Your task to perform on an android device: Clear all items from cart on amazon.com. Search for logitech g pro on amazon.com, select the first entry, and add it to the cart. Image 0: 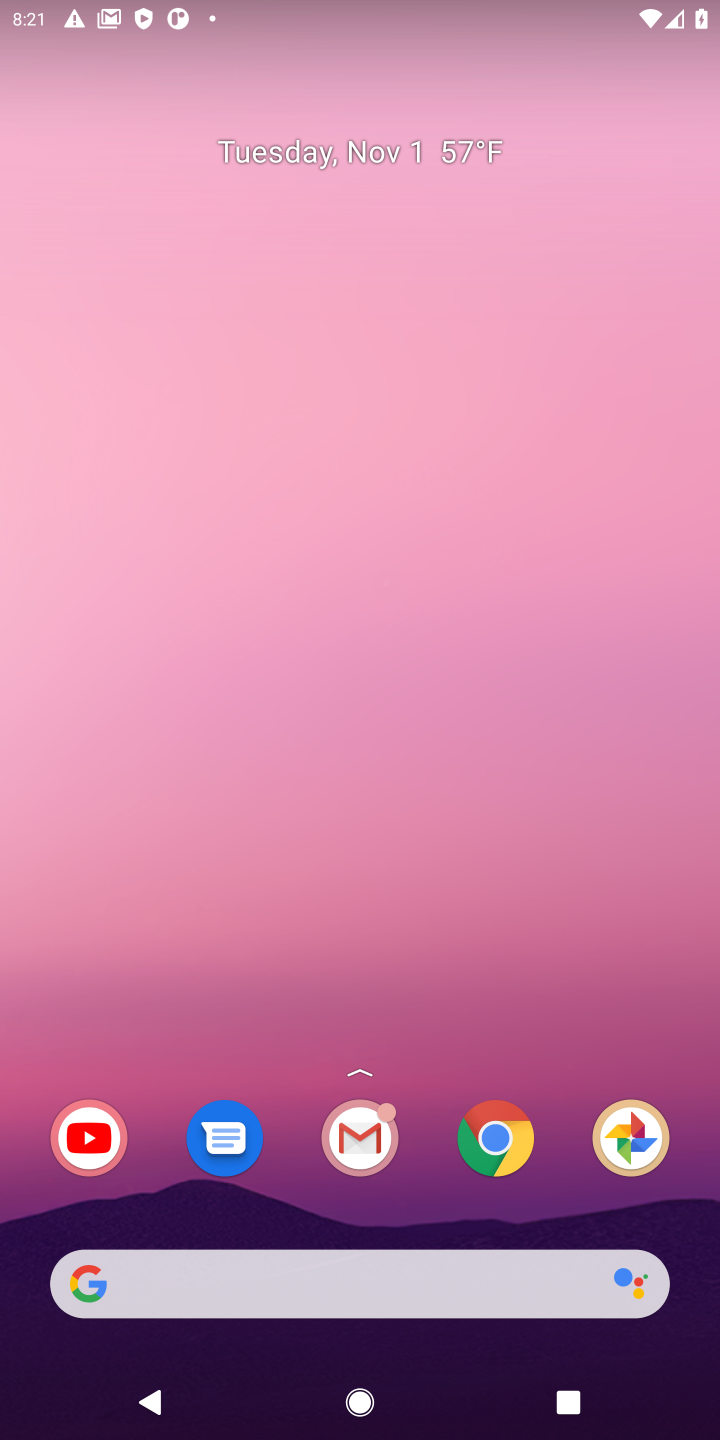
Step 0: click (489, 1146)
Your task to perform on an android device: Clear all items from cart on amazon.com. Search for logitech g pro on amazon.com, select the first entry, and add it to the cart. Image 1: 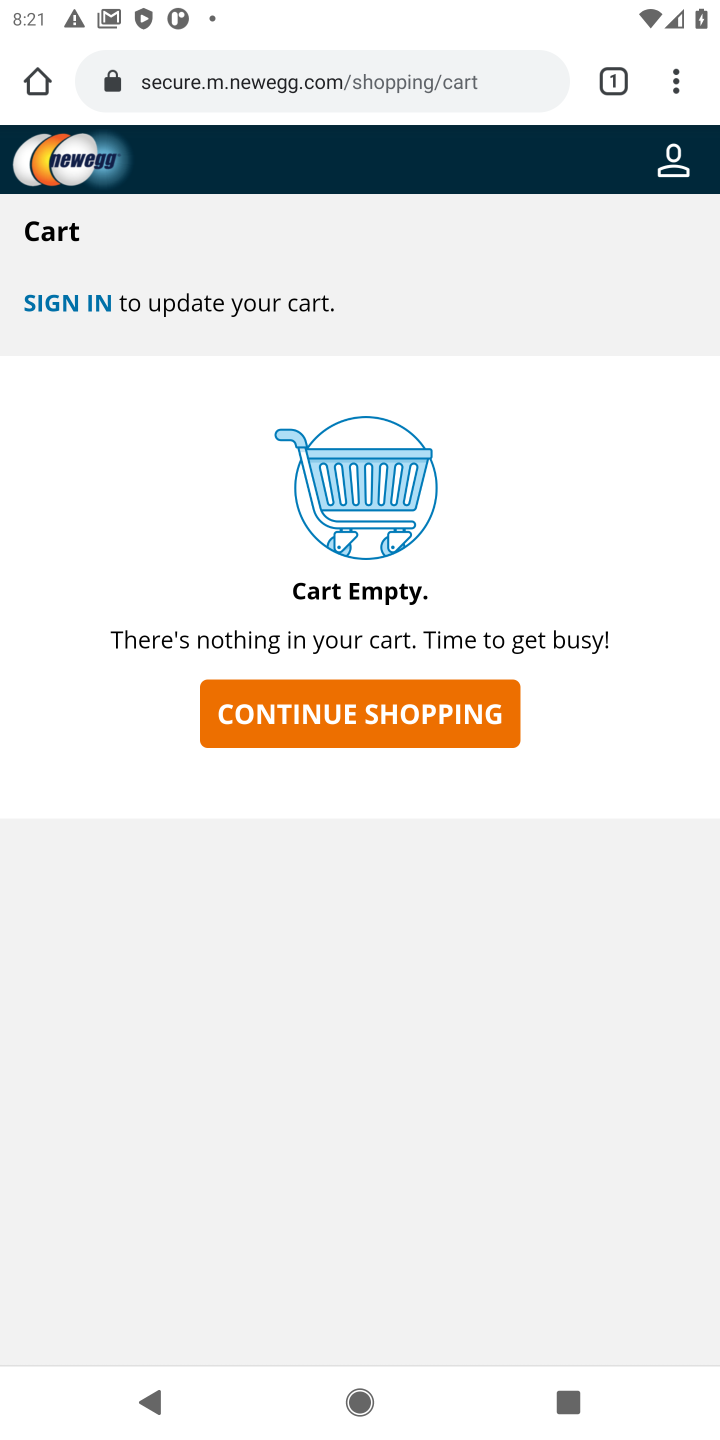
Step 1: click (221, 88)
Your task to perform on an android device: Clear all items from cart on amazon.com. Search for logitech g pro on amazon.com, select the first entry, and add it to the cart. Image 2: 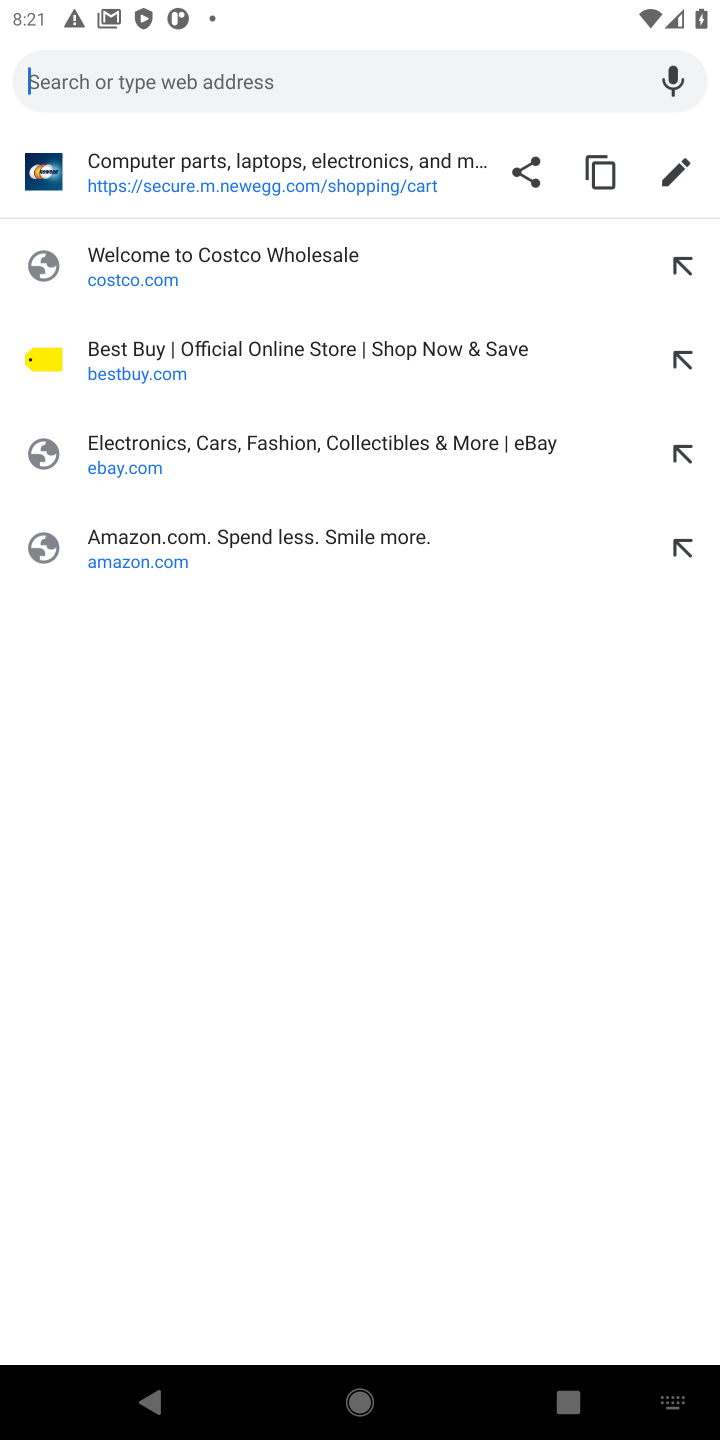
Step 2: click (130, 562)
Your task to perform on an android device: Clear all items from cart on amazon.com. Search for logitech g pro on amazon.com, select the first entry, and add it to the cart. Image 3: 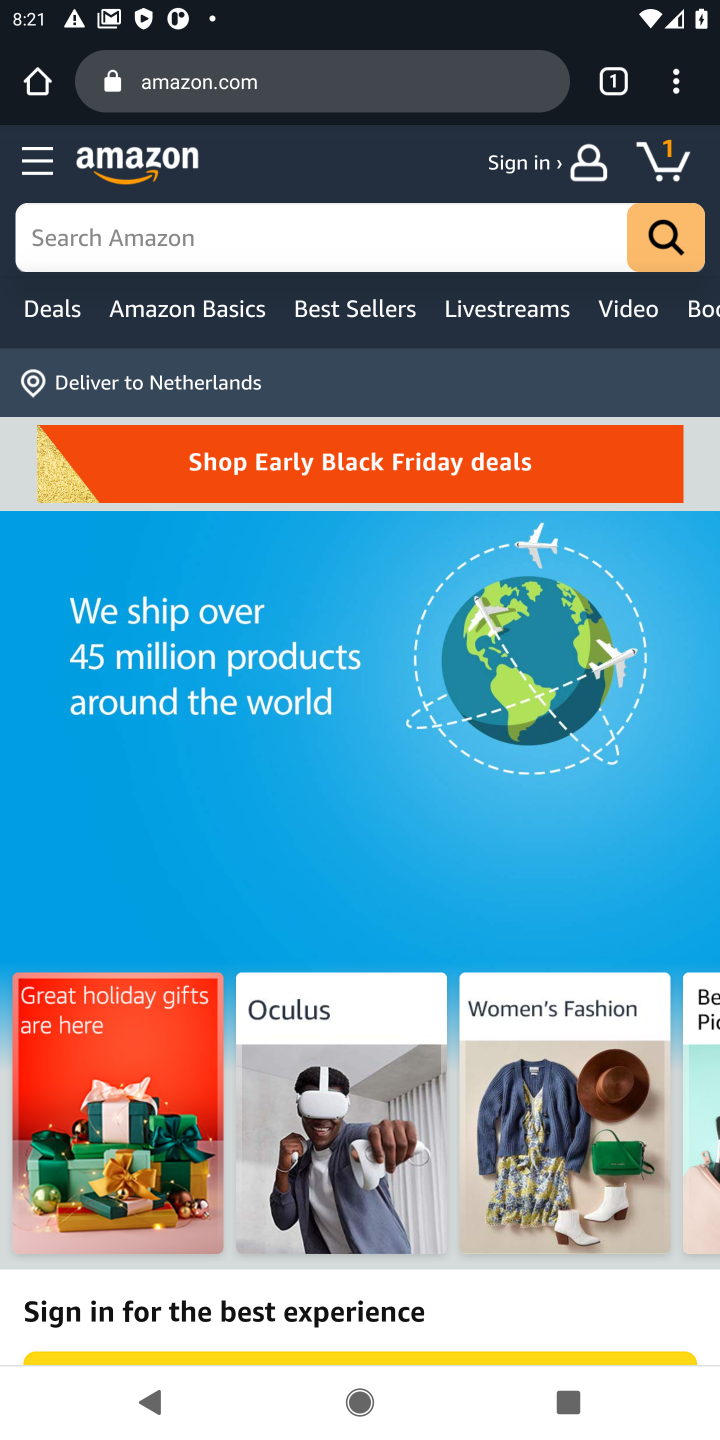
Step 3: click (657, 157)
Your task to perform on an android device: Clear all items from cart on amazon.com. Search for logitech g pro on amazon.com, select the first entry, and add it to the cart. Image 4: 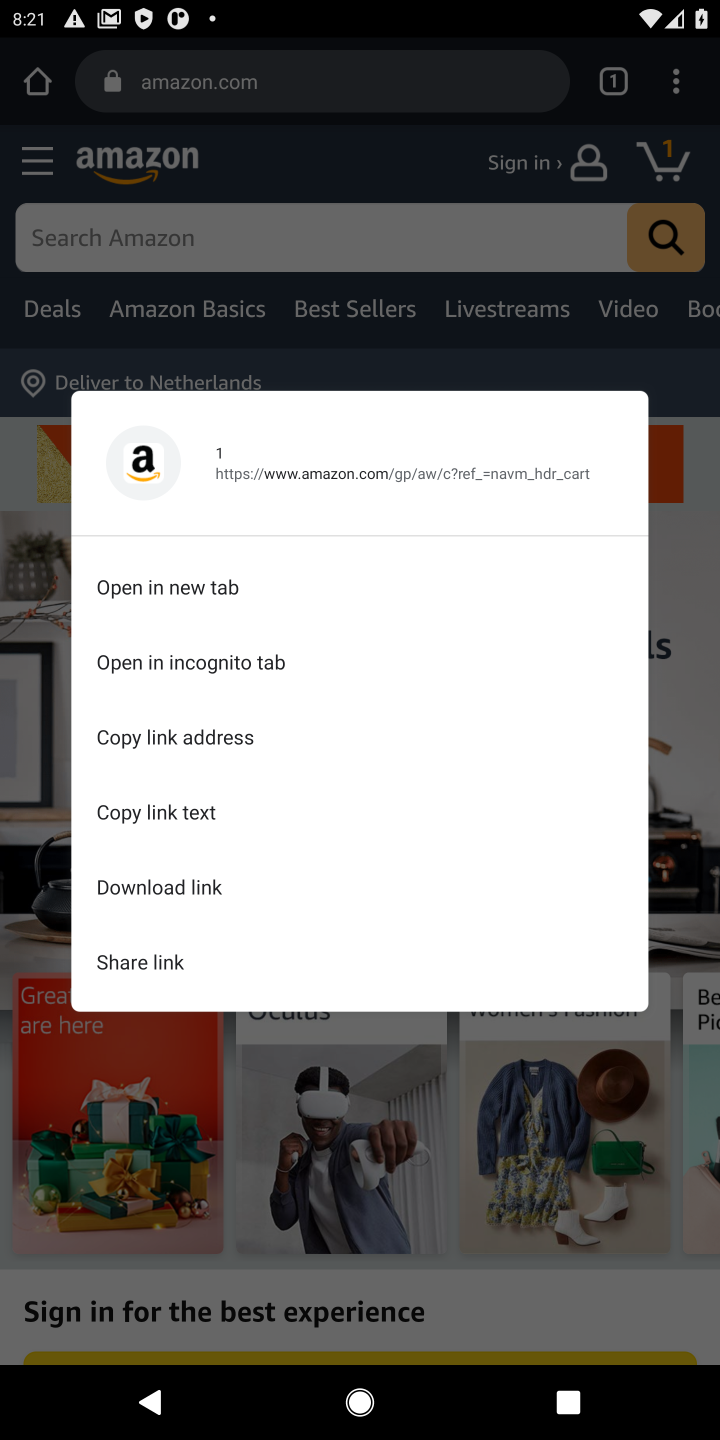
Step 4: click (657, 157)
Your task to perform on an android device: Clear all items from cart on amazon.com. Search for logitech g pro on amazon.com, select the first entry, and add it to the cart. Image 5: 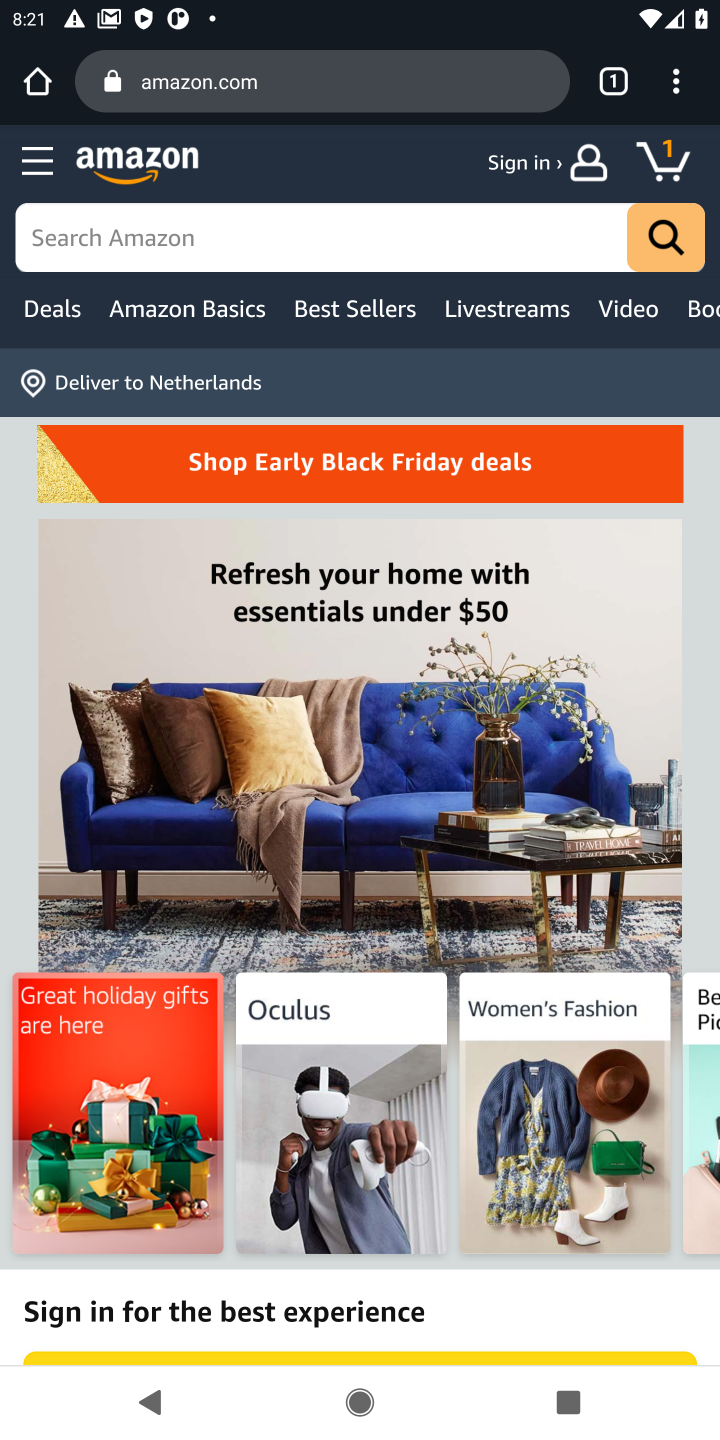
Step 5: click (662, 171)
Your task to perform on an android device: Clear all items from cart on amazon.com. Search for logitech g pro on amazon.com, select the first entry, and add it to the cart. Image 6: 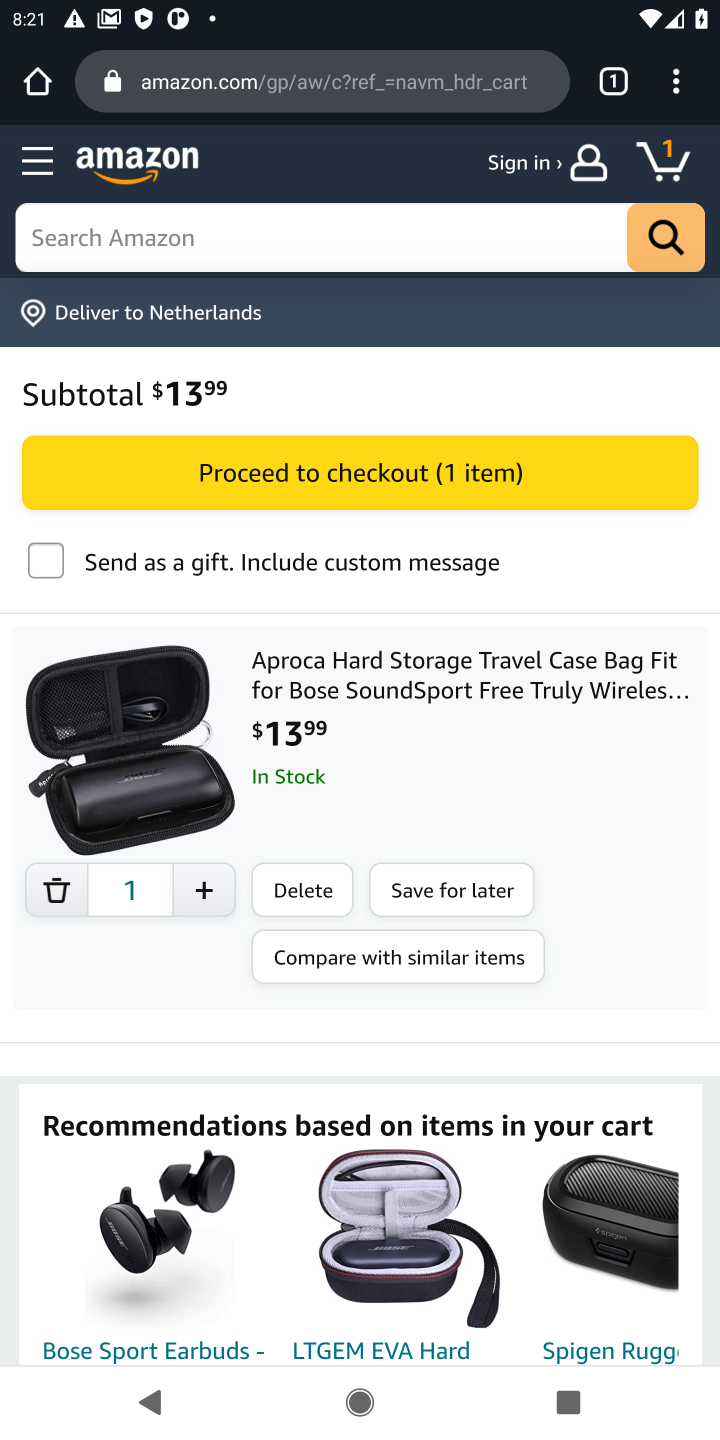
Step 6: click (314, 886)
Your task to perform on an android device: Clear all items from cart on amazon.com. Search for logitech g pro on amazon.com, select the first entry, and add it to the cart. Image 7: 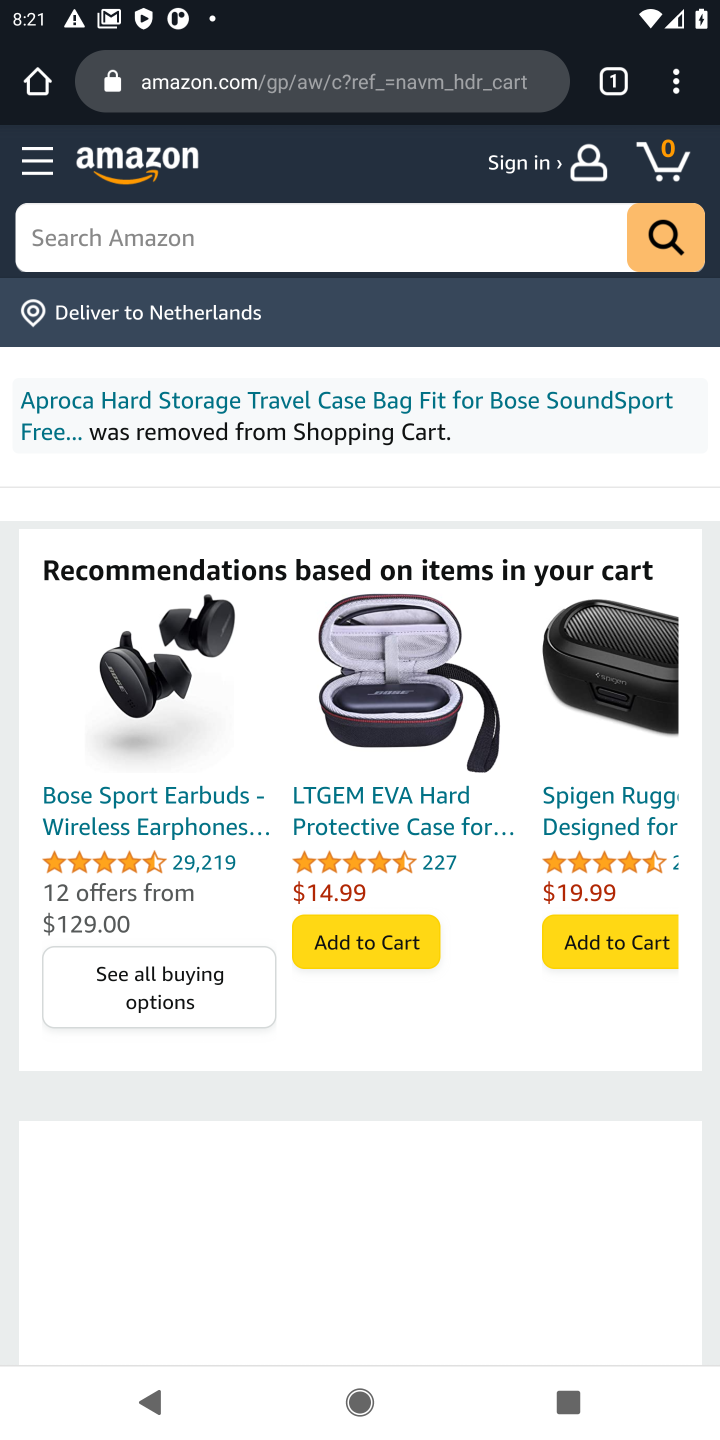
Step 7: click (118, 243)
Your task to perform on an android device: Clear all items from cart on amazon.com. Search for logitech g pro on amazon.com, select the first entry, and add it to the cart. Image 8: 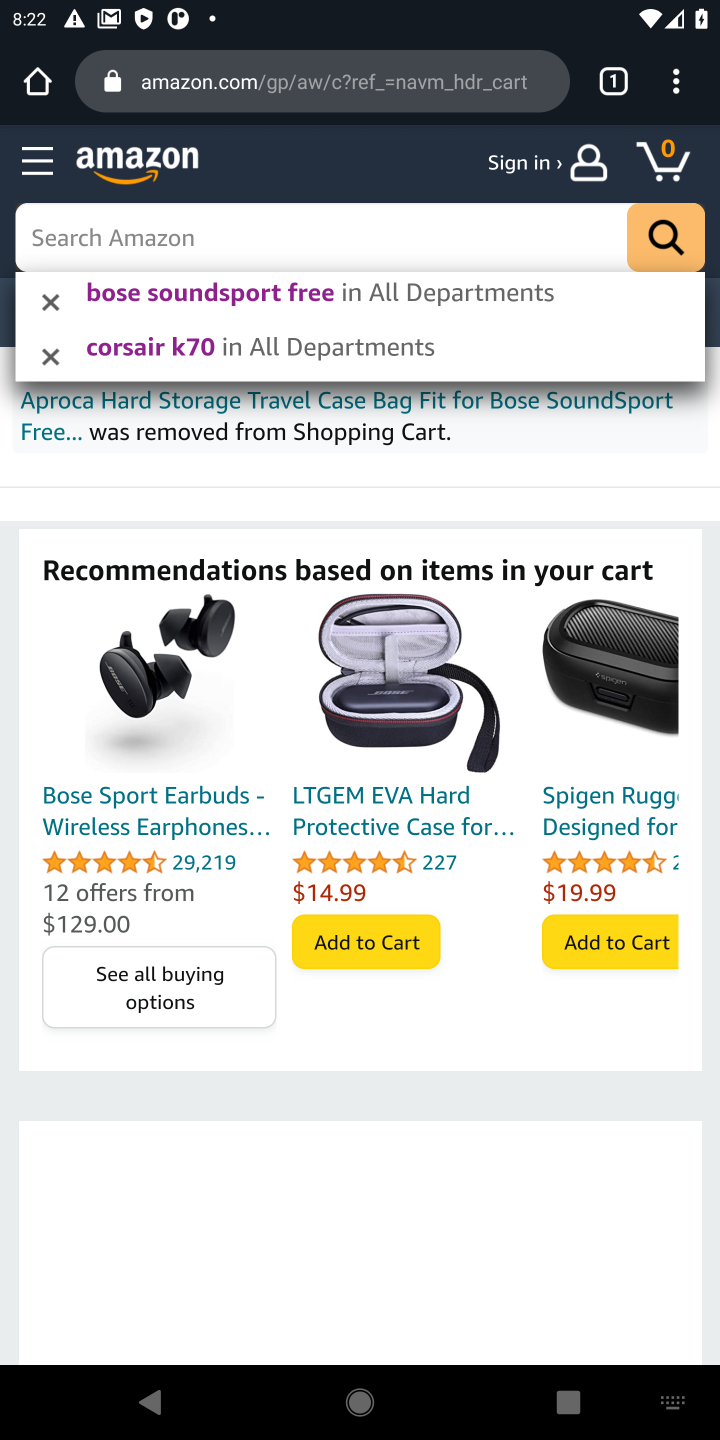
Step 8: type " logitech g pro"
Your task to perform on an android device: Clear all items from cart on amazon.com. Search for logitech g pro on amazon.com, select the first entry, and add it to the cart. Image 9: 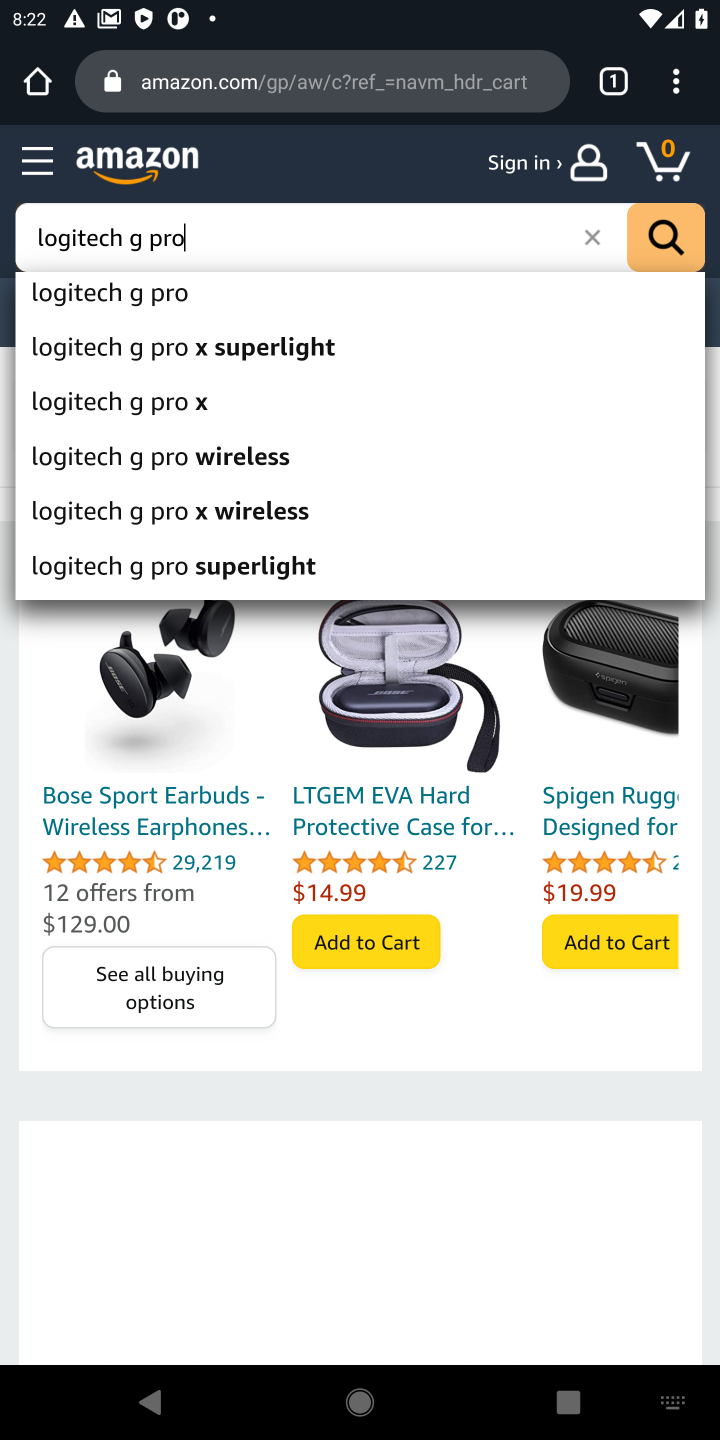
Step 9: click (129, 300)
Your task to perform on an android device: Clear all items from cart on amazon.com. Search for logitech g pro on amazon.com, select the first entry, and add it to the cart. Image 10: 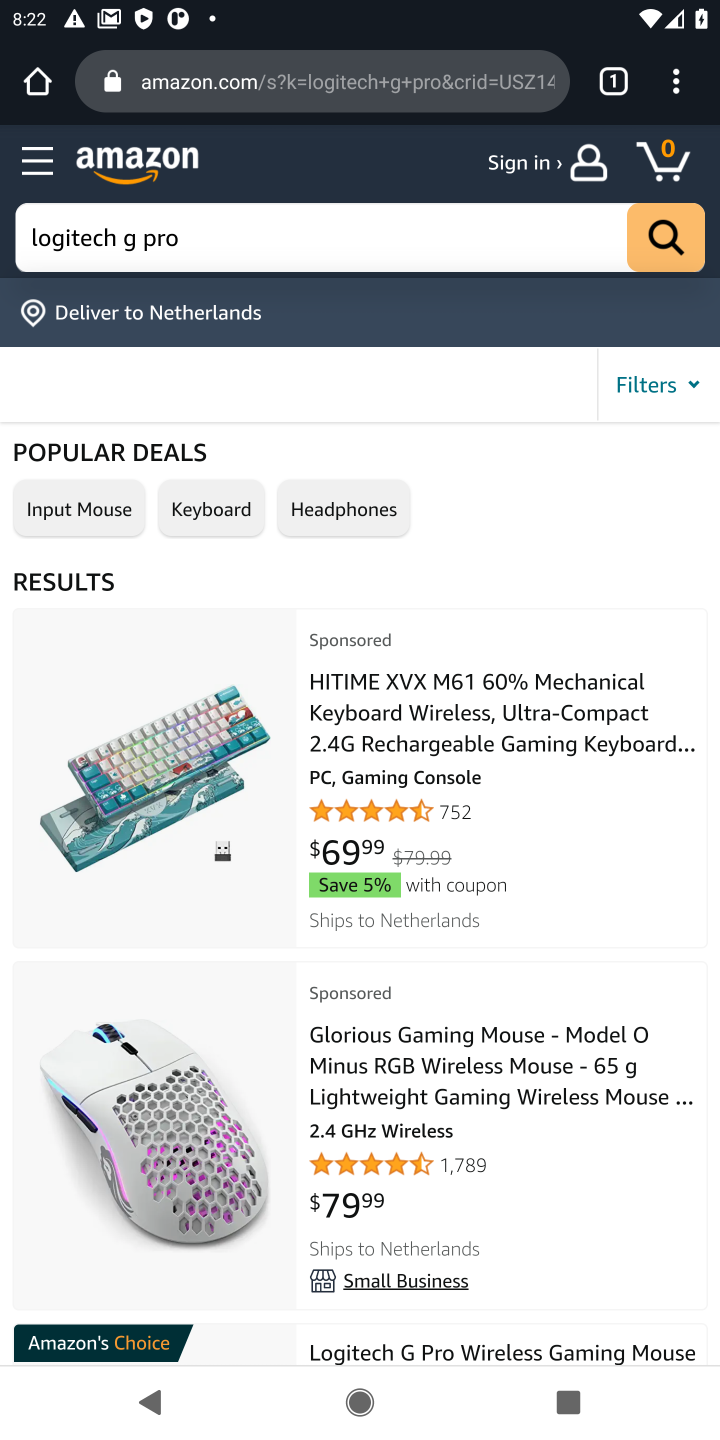
Step 10: drag from (379, 956) to (403, 774)
Your task to perform on an android device: Clear all items from cart on amazon.com. Search for logitech g pro on amazon.com, select the first entry, and add it to the cart. Image 11: 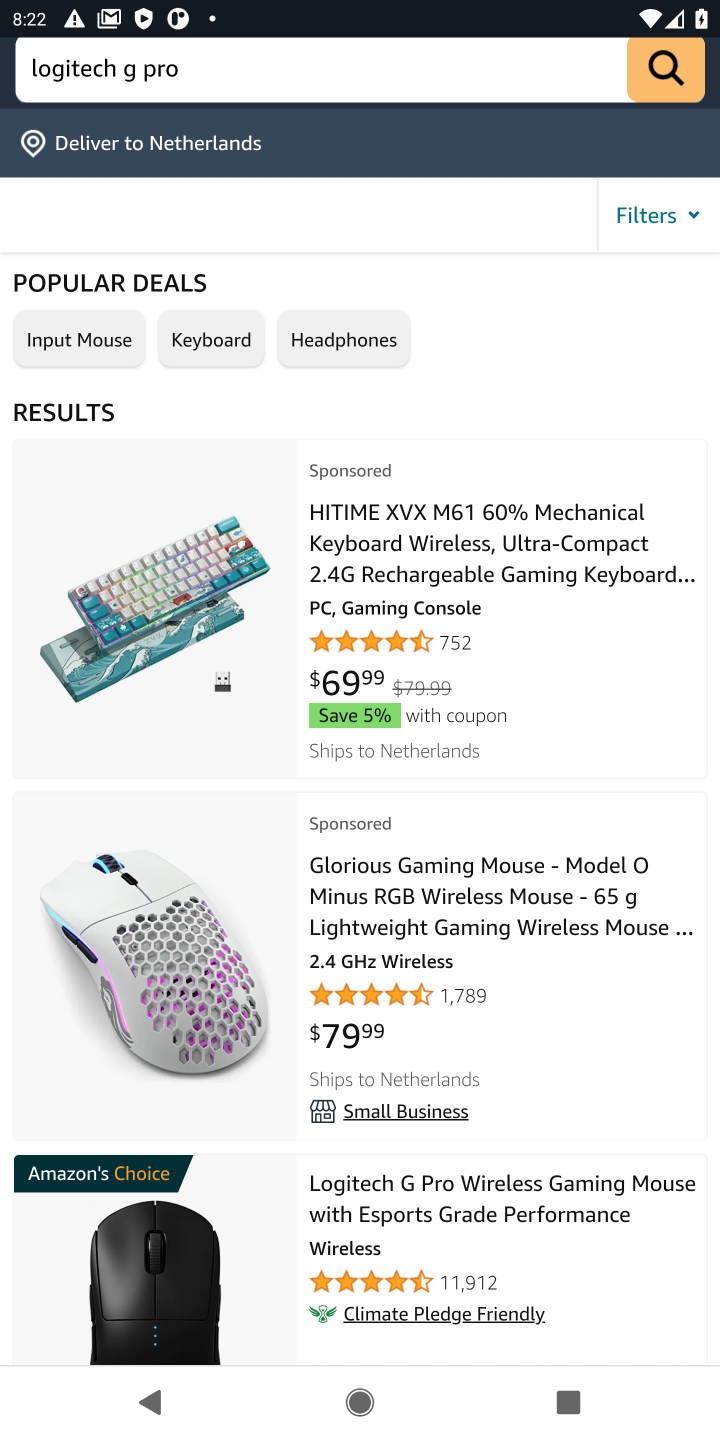
Step 11: click (356, 575)
Your task to perform on an android device: Clear all items from cart on amazon.com. Search for logitech g pro on amazon.com, select the first entry, and add it to the cart. Image 12: 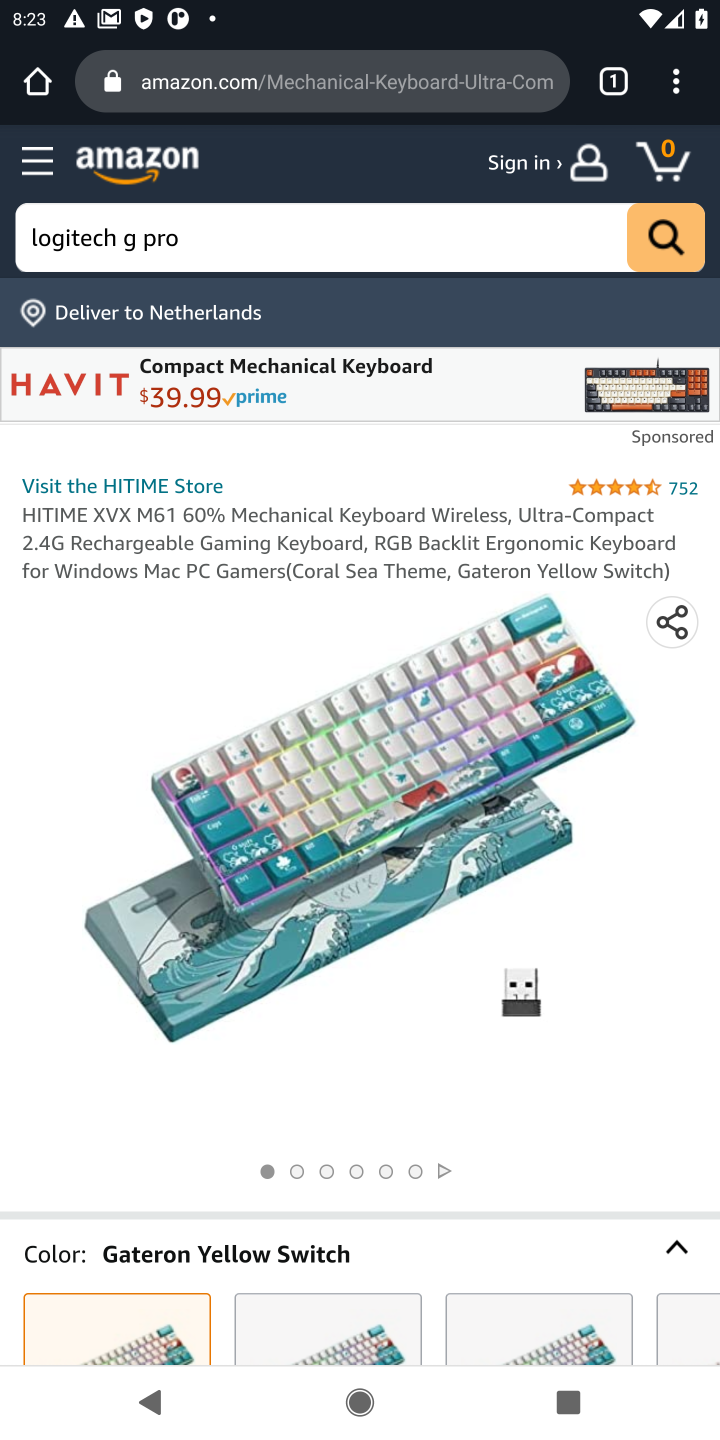
Step 12: task complete